Your task to perform on an android device: delete the emails in spam in the gmail app Image 0: 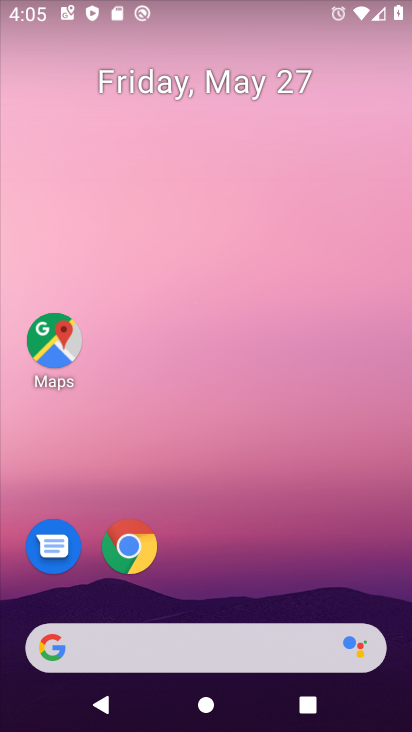
Step 0: press home button
Your task to perform on an android device: delete the emails in spam in the gmail app Image 1: 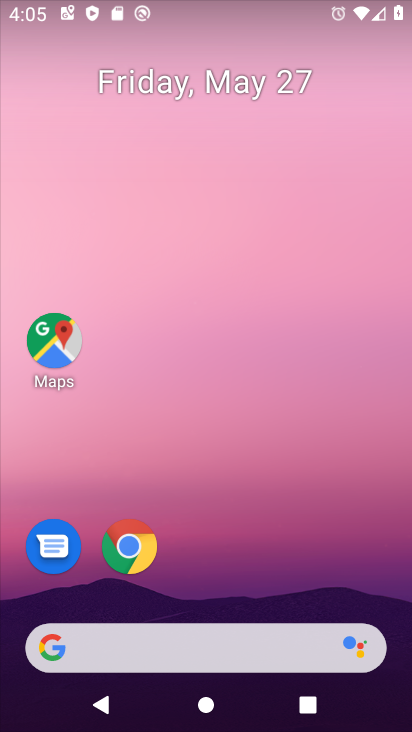
Step 1: drag from (223, 603) to (226, 83)
Your task to perform on an android device: delete the emails in spam in the gmail app Image 2: 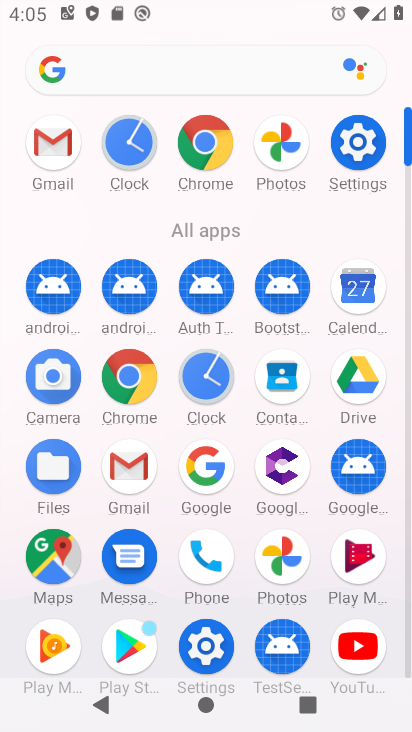
Step 2: click (52, 134)
Your task to perform on an android device: delete the emails in spam in the gmail app Image 3: 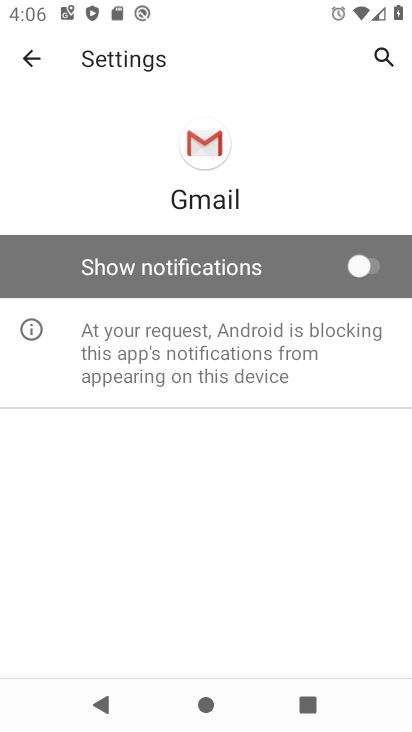
Step 3: click (35, 64)
Your task to perform on an android device: delete the emails in spam in the gmail app Image 4: 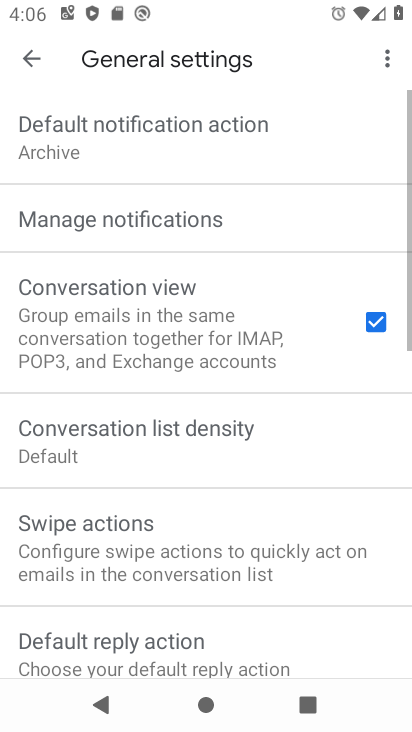
Step 4: click (35, 64)
Your task to perform on an android device: delete the emails in spam in the gmail app Image 5: 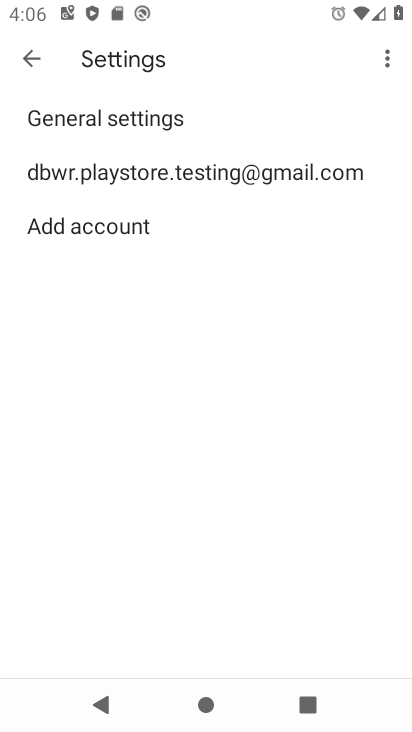
Step 5: click (35, 56)
Your task to perform on an android device: delete the emails in spam in the gmail app Image 6: 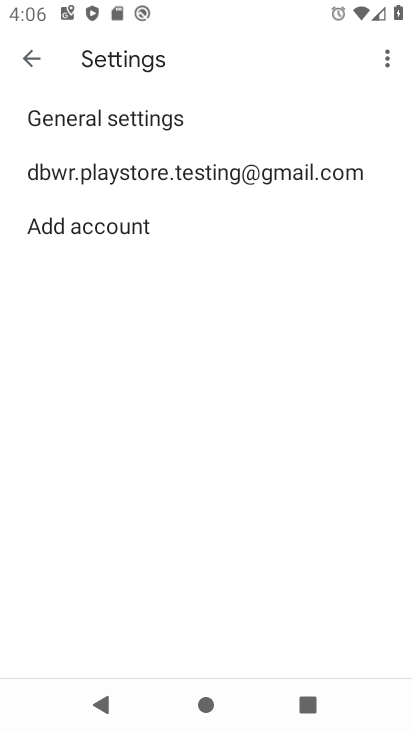
Step 6: click (24, 52)
Your task to perform on an android device: delete the emails in spam in the gmail app Image 7: 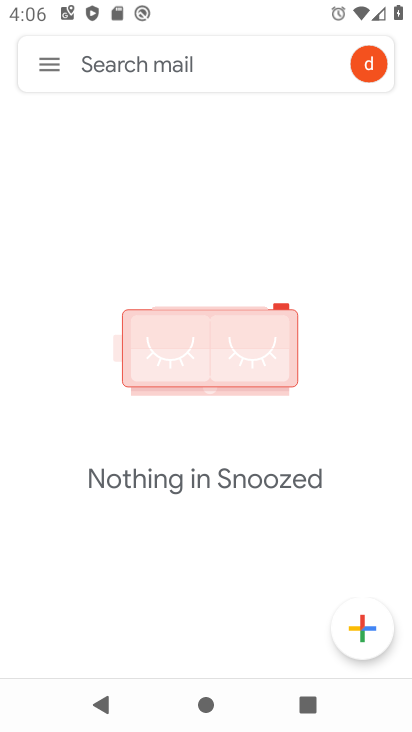
Step 7: click (52, 72)
Your task to perform on an android device: delete the emails in spam in the gmail app Image 8: 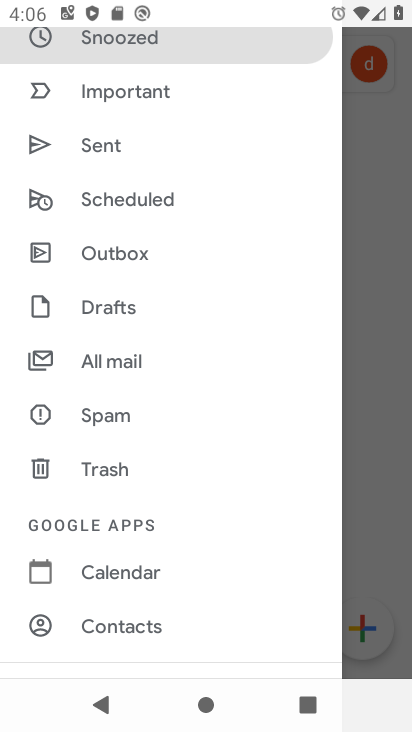
Step 8: click (127, 416)
Your task to perform on an android device: delete the emails in spam in the gmail app Image 9: 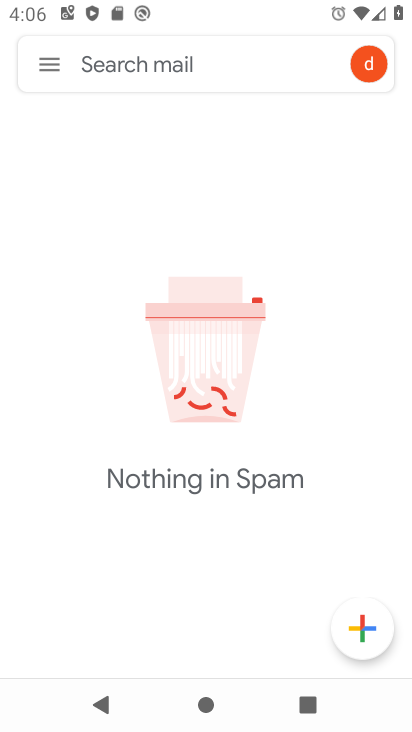
Step 9: task complete